Your task to perform on an android device: turn off javascript in the chrome app Image 0: 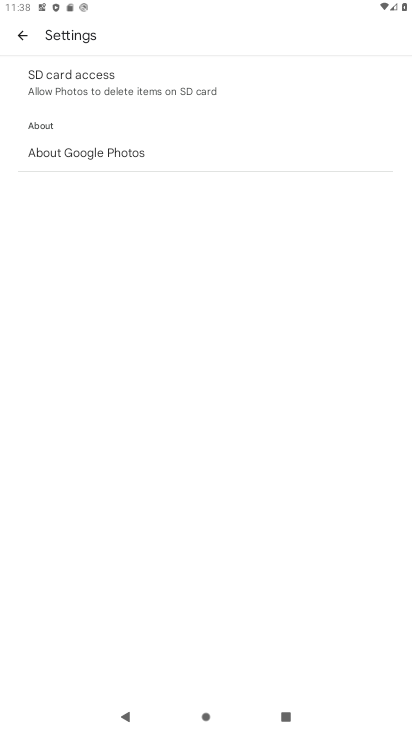
Step 0: press home button
Your task to perform on an android device: turn off javascript in the chrome app Image 1: 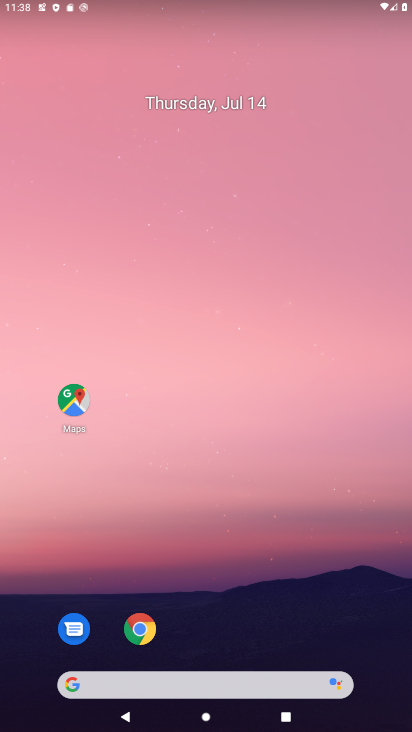
Step 1: drag from (264, 625) to (265, 121)
Your task to perform on an android device: turn off javascript in the chrome app Image 2: 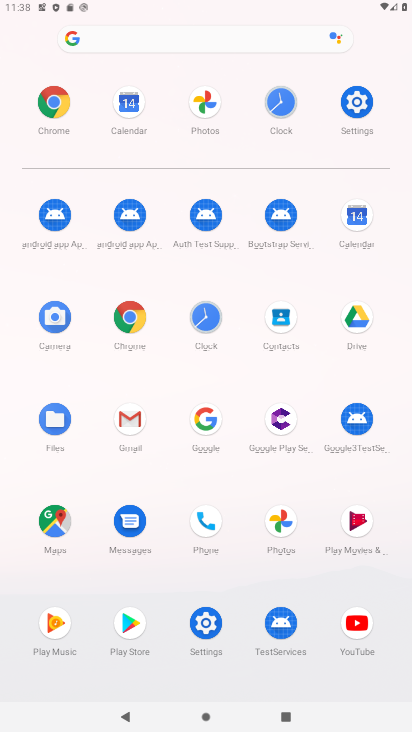
Step 2: click (129, 315)
Your task to perform on an android device: turn off javascript in the chrome app Image 3: 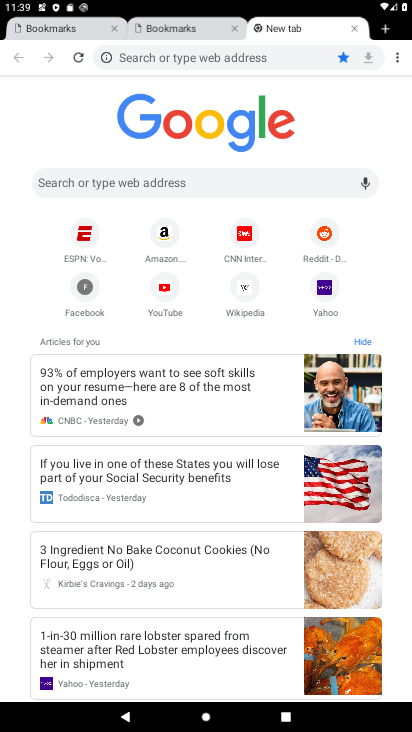
Step 3: drag from (395, 59) to (279, 268)
Your task to perform on an android device: turn off javascript in the chrome app Image 4: 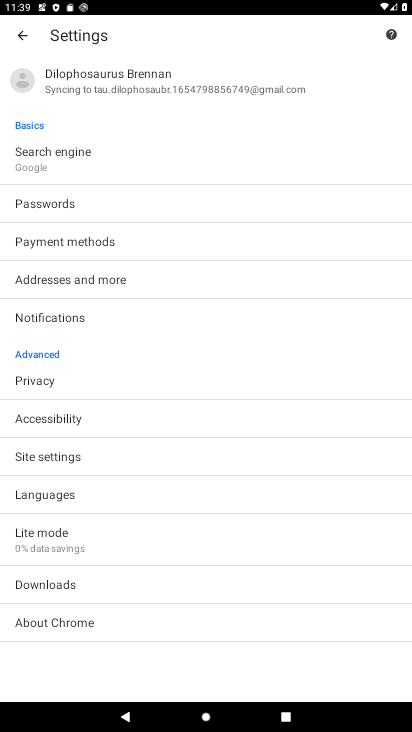
Step 4: click (38, 460)
Your task to perform on an android device: turn off javascript in the chrome app Image 5: 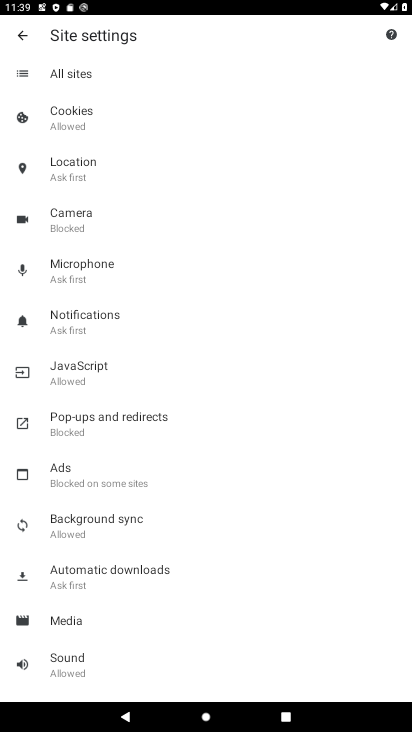
Step 5: click (86, 371)
Your task to perform on an android device: turn off javascript in the chrome app Image 6: 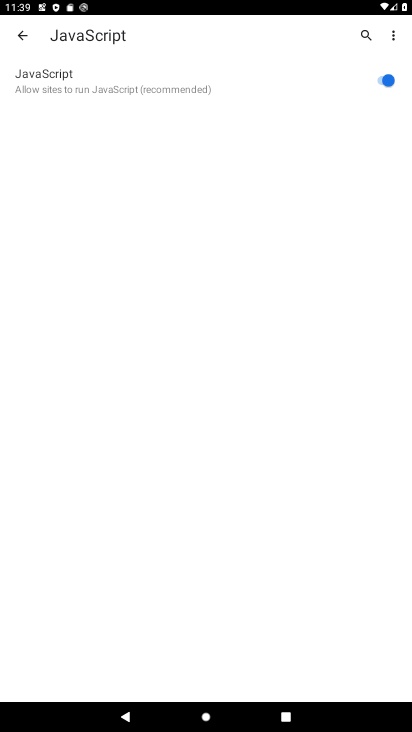
Step 6: click (390, 78)
Your task to perform on an android device: turn off javascript in the chrome app Image 7: 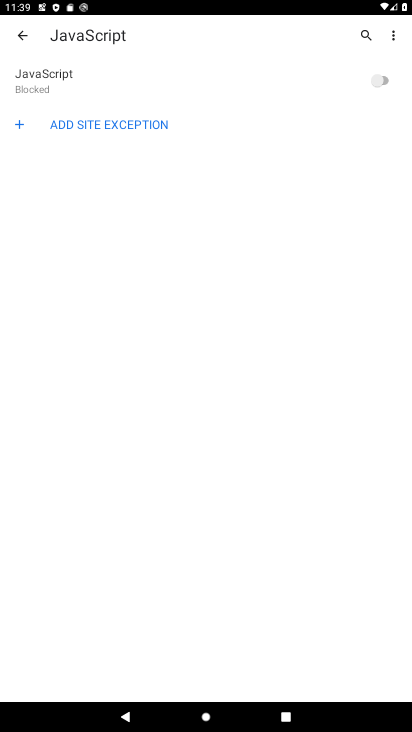
Step 7: task complete